Your task to perform on an android device: open a new tab in the chrome app Image 0: 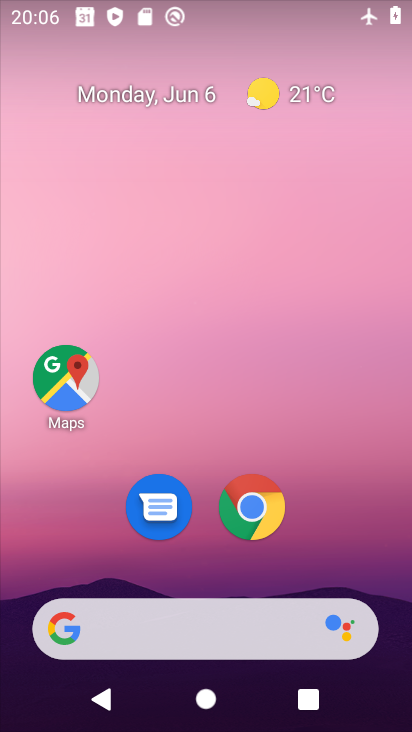
Step 0: click (248, 512)
Your task to perform on an android device: open a new tab in the chrome app Image 1: 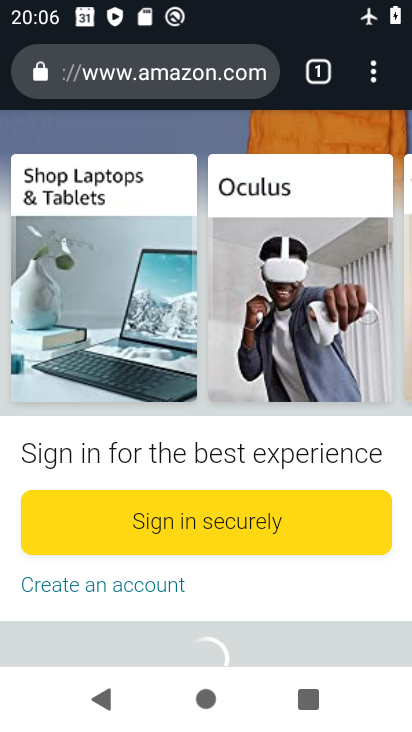
Step 1: click (322, 75)
Your task to perform on an android device: open a new tab in the chrome app Image 2: 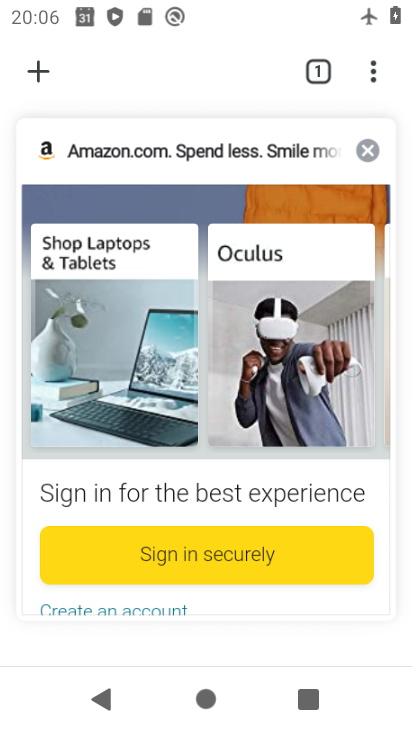
Step 2: click (39, 79)
Your task to perform on an android device: open a new tab in the chrome app Image 3: 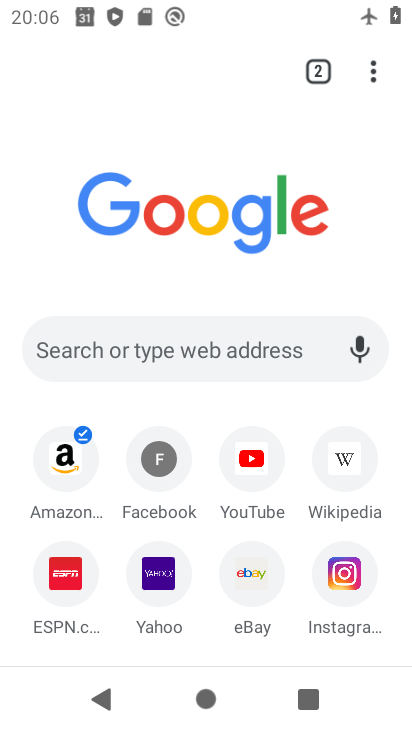
Step 3: task complete